Your task to perform on an android device: turn on location history Image 0: 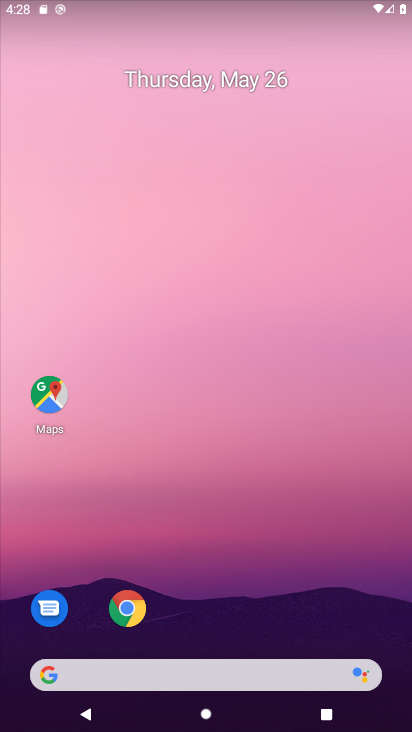
Step 0: drag from (240, 624) to (210, 94)
Your task to perform on an android device: turn on location history Image 1: 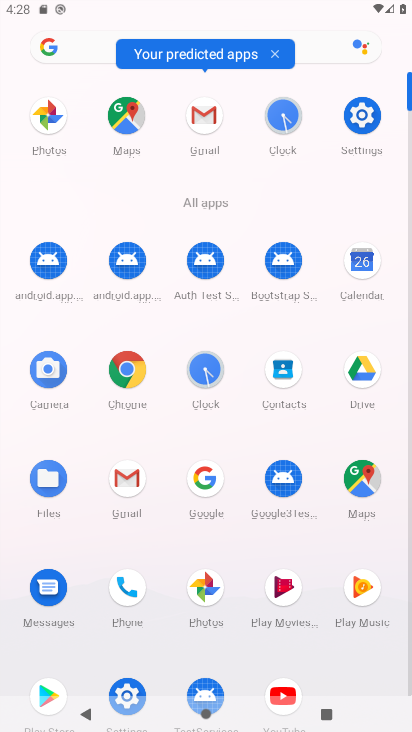
Step 1: drag from (140, 658) to (130, 430)
Your task to perform on an android device: turn on location history Image 2: 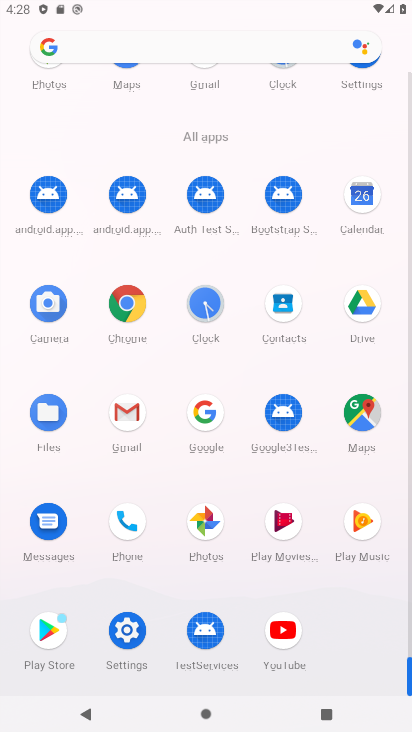
Step 2: click (129, 643)
Your task to perform on an android device: turn on location history Image 3: 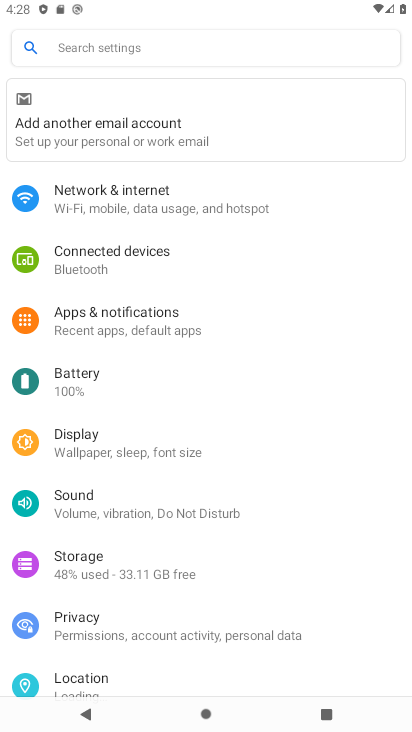
Step 3: click (106, 603)
Your task to perform on an android device: turn on location history Image 4: 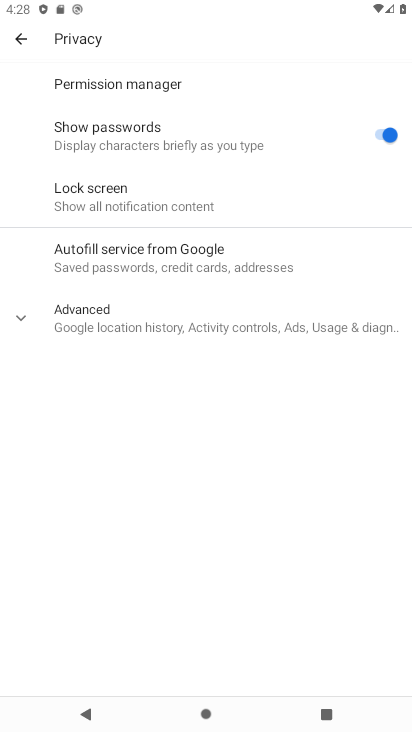
Step 4: drag from (121, 570) to (142, 399)
Your task to perform on an android device: turn on location history Image 5: 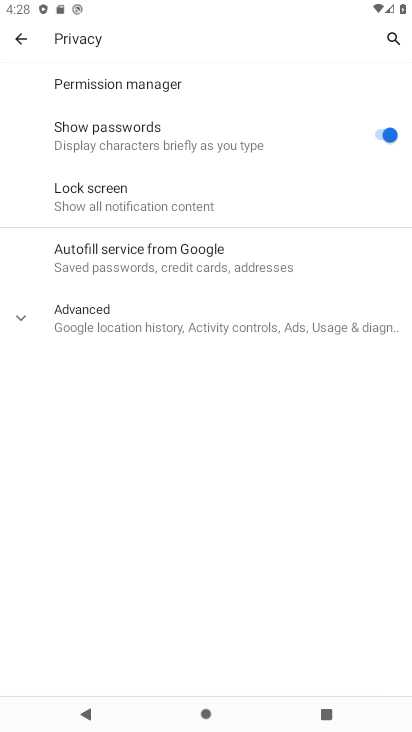
Step 5: click (26, 43)
Your task to perform on an android device: turn on location history Image 6: 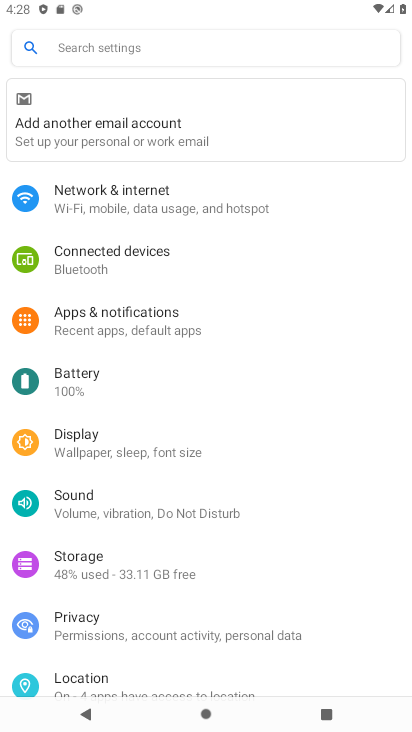
Step 6: drag from (120, 624) to (136, 397)
Your task to perform on an android device: turn on location history Image 7: 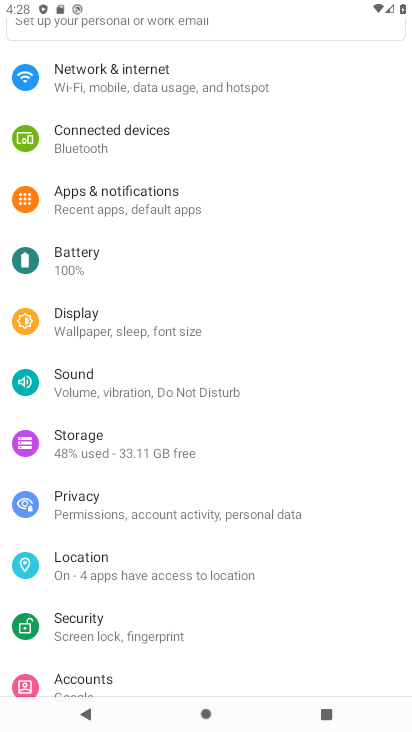
Step 7: click (134, 582)
Your task to perform on an android device: turn on location history Image 8: 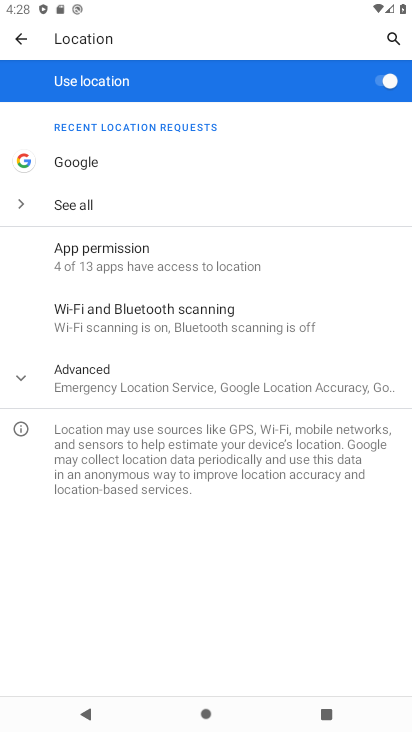
Step 8: click (124, 383)
Your task to perform on an android device: turn on location history Image 9: 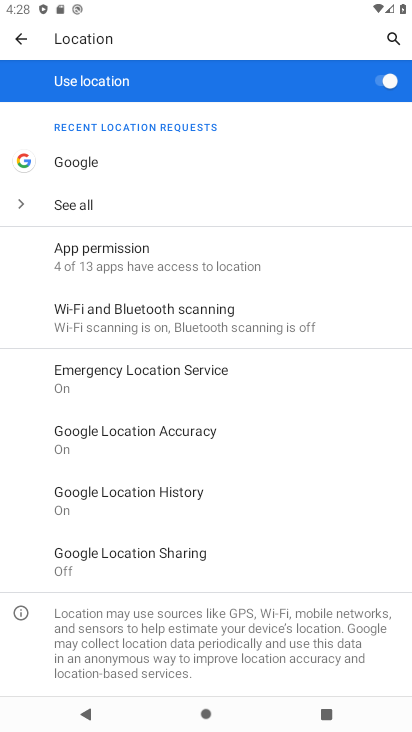
Step 9: click (132, 488)
Your task to perform on an android device: turn on location history Image 10: 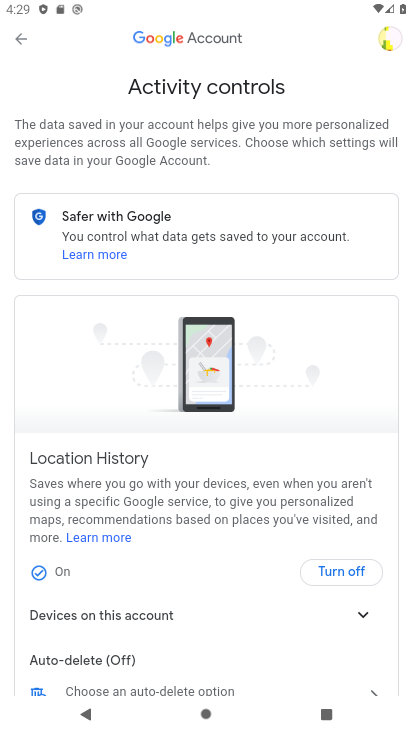
Step 10: task complete